Your task to perform on an android device: Open Wikipedia Image 0: 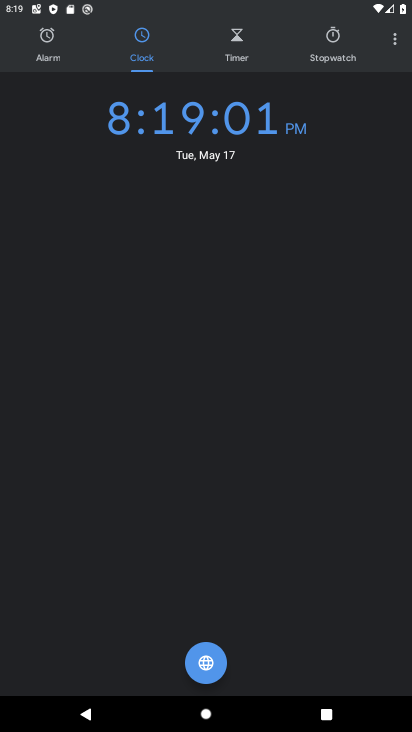
Step 0: press home button
Your task to perform on an android device: Open Wikipedia Image 1: 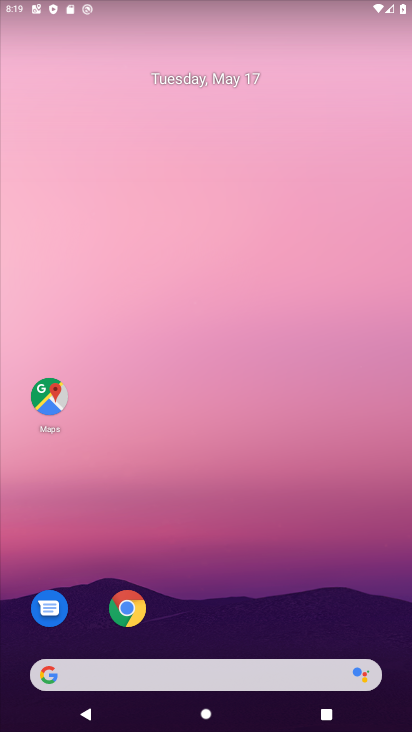
Step 1: click (121, 615)
Your task to perform on an android device: Open Wikipedia Image 2: 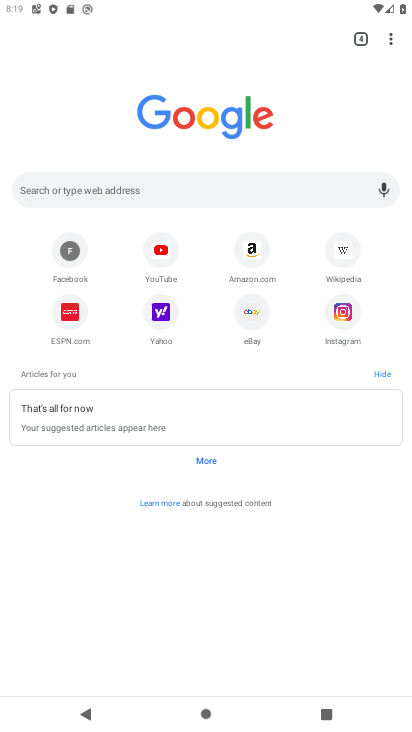
Step 2: click (338, 252)
Your task to perform on an android device: Open Wikipedia Image 3: 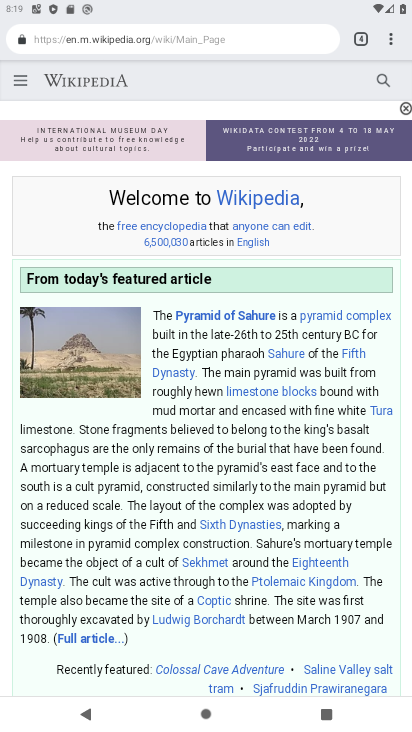
Step 3: task complete